Your task to perform on an android device: toggle airplane mode Image 0: 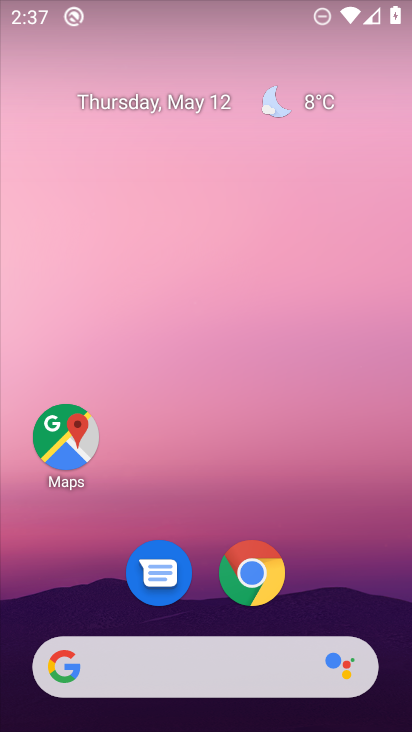
Step 0: drag from (375, 622) to (114, 90)
Your task to perform on an android device: toggle airplane mode Image 1: 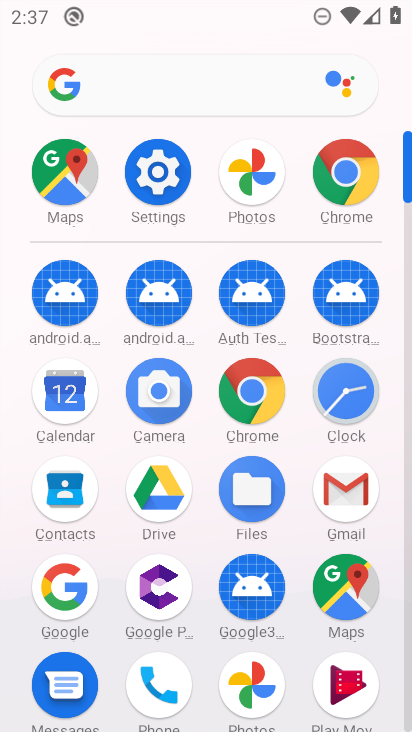
Step 1: click (151, 181)
Your task to perform on an android device: toggle airplane mode Image 2: 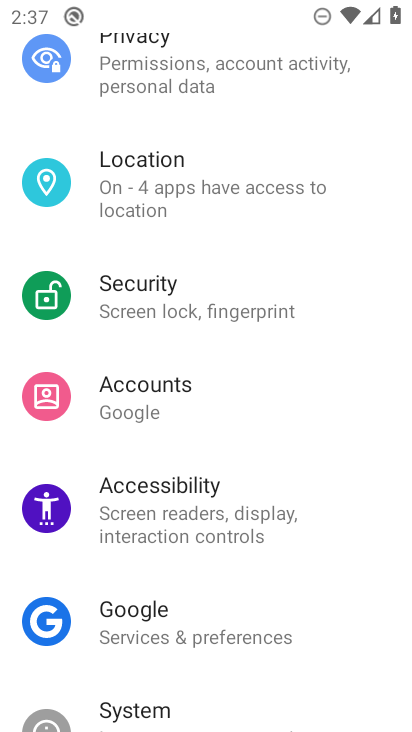
Step 2: drag from (135, 215) to (146, 646)
Your task to perform on an android device: toggle airplane mode Image 3: 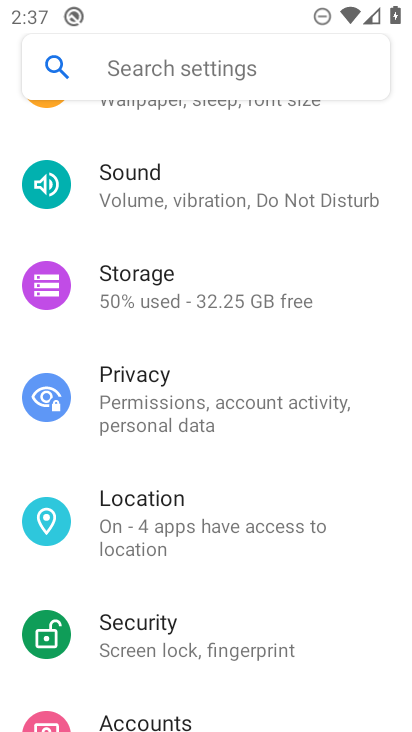
Step 3: drag from (165, 220) to (221, 633)
Your task to perform on an android device: toggle airplane mode Image 4: 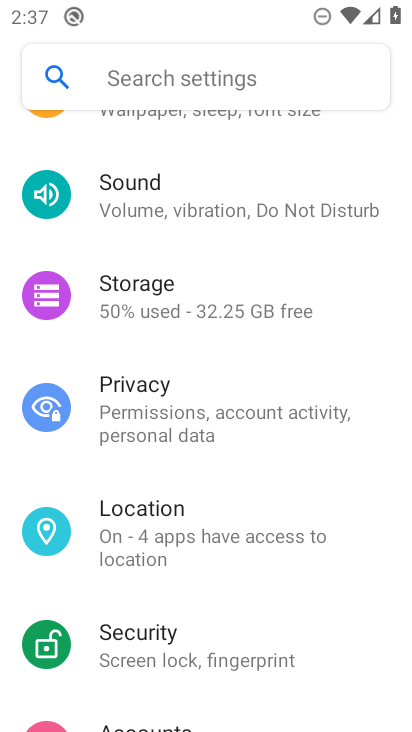
Step 4: drag from (199, 315) to (230, 606)
Your task to perform on an android device: toggle airplane mode Image 5: 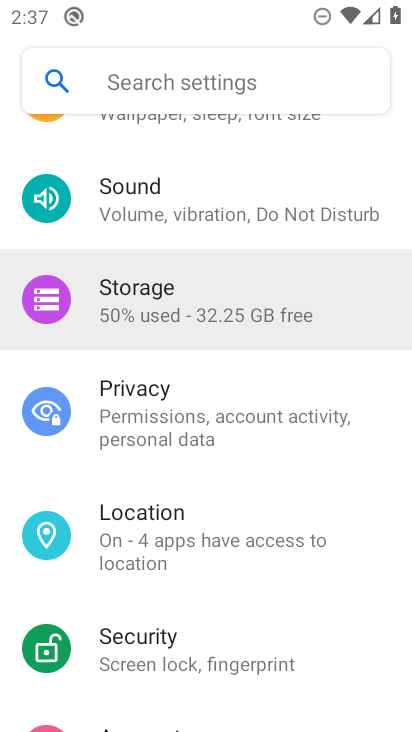
Step 5: drag from (159, 223) to (194, 647)
Your task to perform on an android device: toggle airplane mode Image 6: 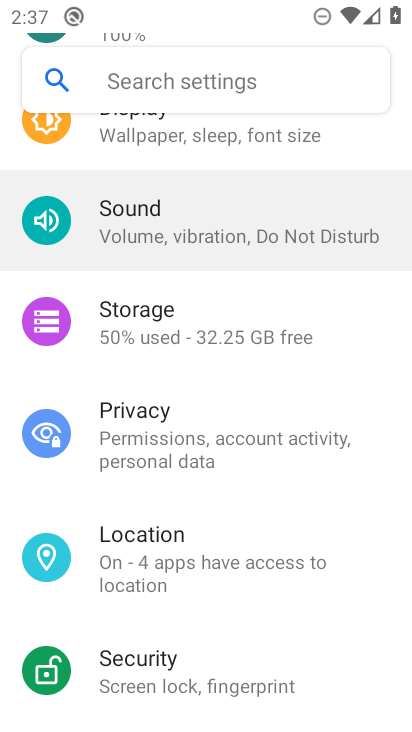
Step 6: drag from (173, 271) to (219, 650)
Your task to perform on an android device: toggle airplane mode Image 7: 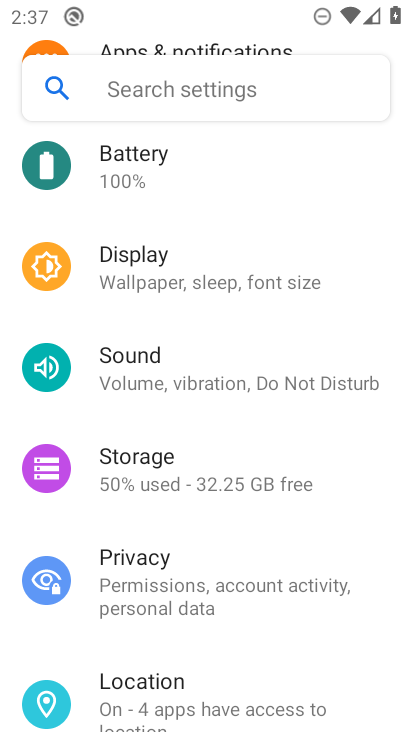
Step 7: drag from (172, 226) to (259, 684)
Your task to perform on an android device: toggle airplane mode Image 8: 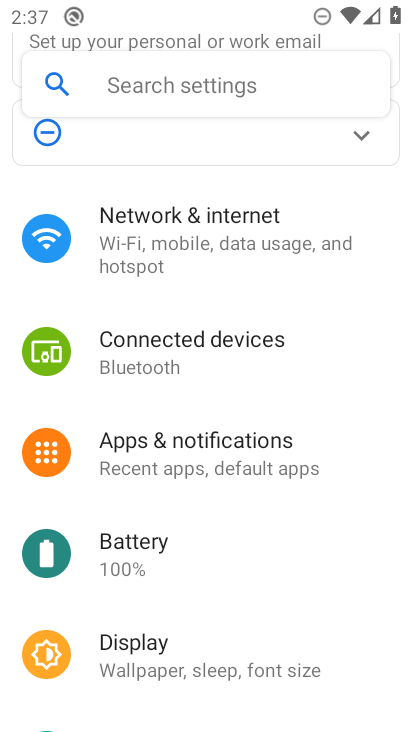
Step 8: drag from (196, 223) to (239, 561)
Your task to perform on an android device: toggle airplane mode Image 9: 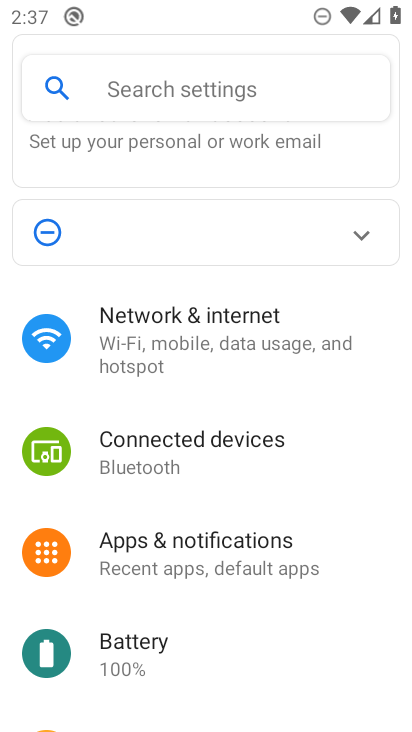
Step 9: drag from (172, 254) to (217, 527)
Your task to perform on an android device: toggle airplane mode Image 10: 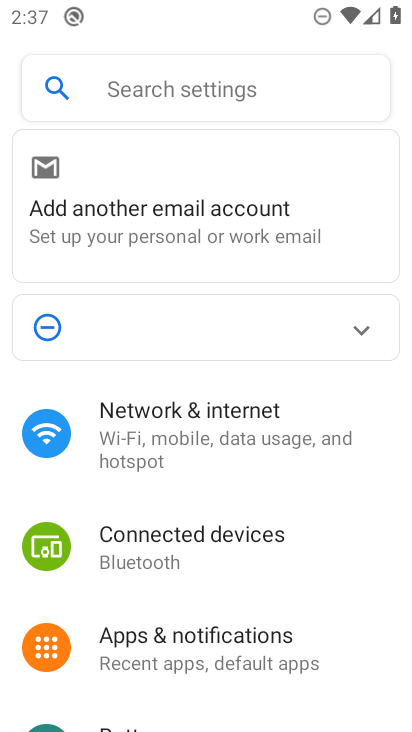
Step 10: click (195, 436)
Your task to perform on an android device: toggle airplane mode Image 11: 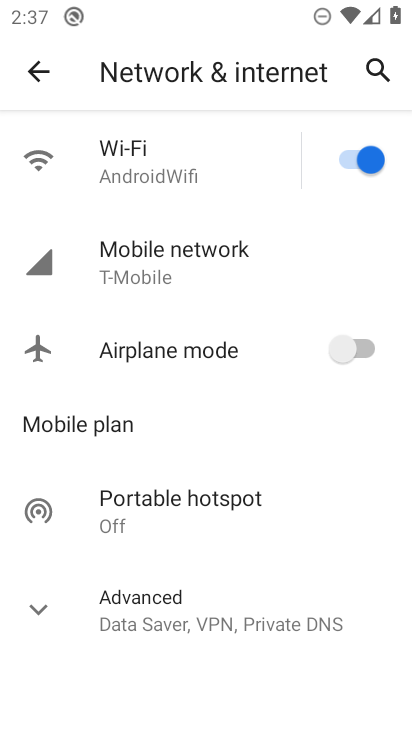
Step 11: click (347, 343)
Your task to perform on an android device: toggle airplane mode Image 12: 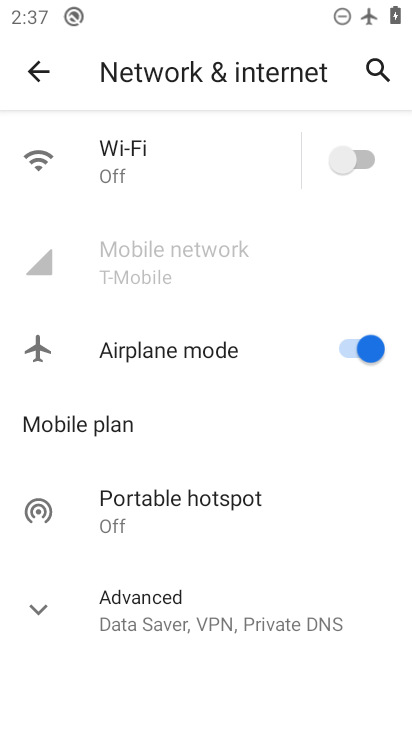
Step 12: task complete